Your task to perform on an android device: turn off picture-in-picture Image 0: 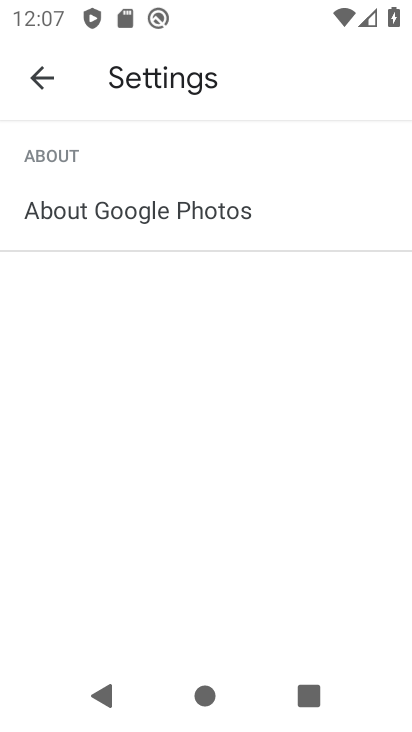
Step 0: press back button
Your task to perform on an android device: turn off picture-in-picture Image 1: 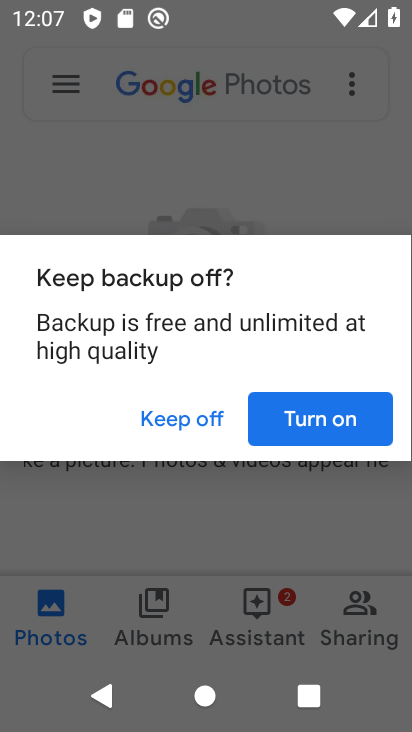
Step 1: press home button
Your task to perform on an android device: turn off picture-in-picture Image 2: 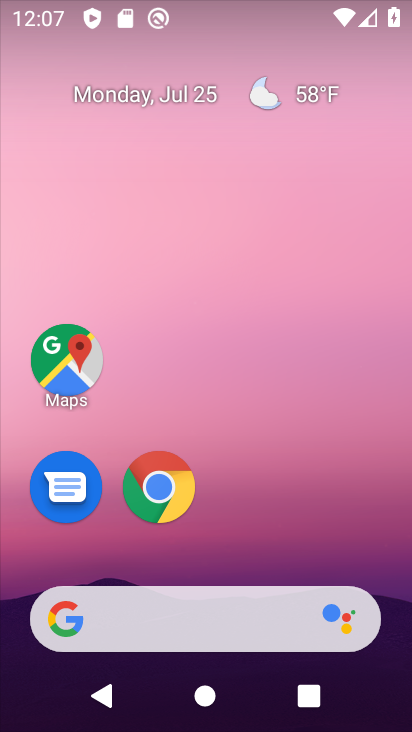
Step 2: drag from (296, 397) to (317, 31)
Your task to perform on an android device: turn off picture-in-picture Image 3: 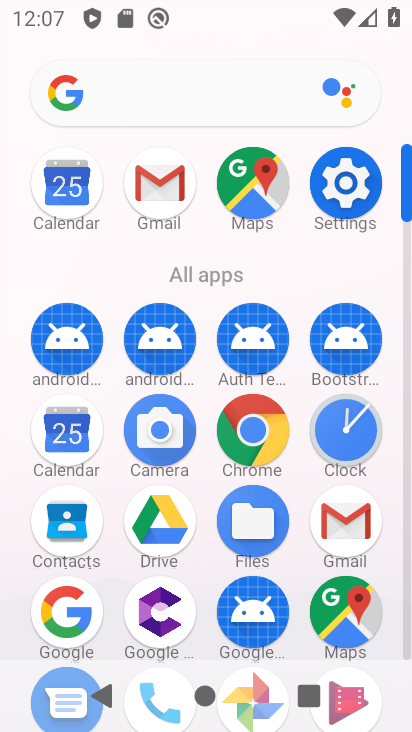
Step 3: click (335, 197)
Your task to perform on an android device: turn off picture-in-picture Image 4: 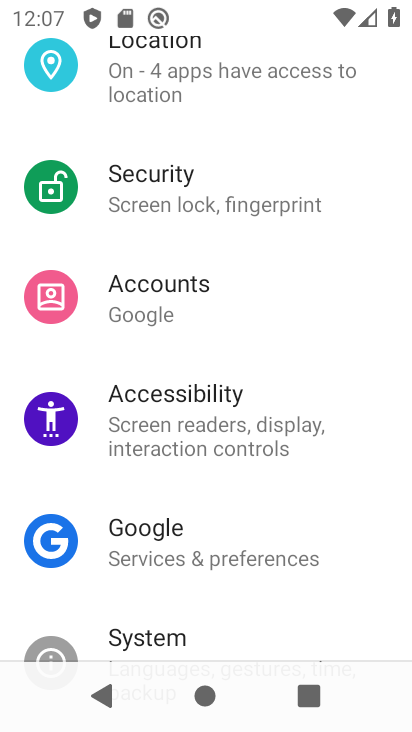
Step 4: drag from (130, 615) to (244, 18)
Your task to perform on an android device: turn off picture-in-picture Image 5: 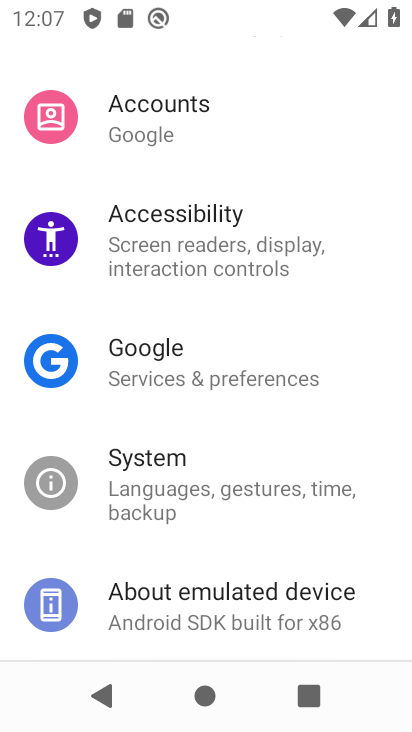
Step 5: drag from (274, 149) to (288, 78)
Your task to perform on an android device: turn off picture-in-picture Image 6: 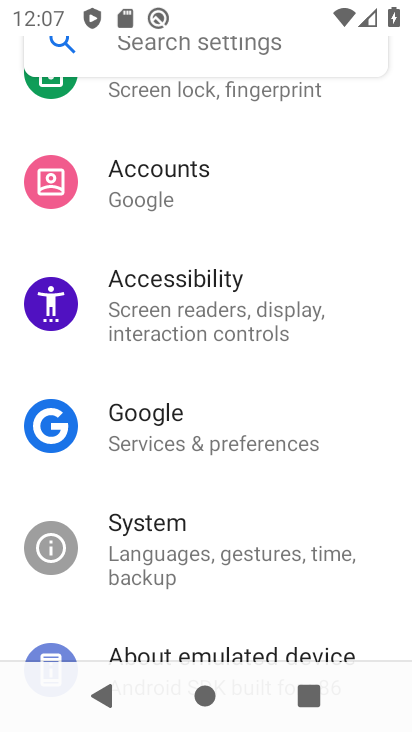
Step 6: drag from (143, 580) to (240, 17)
Your task to perform on an android device: turn off picture-in-picture Image 7: 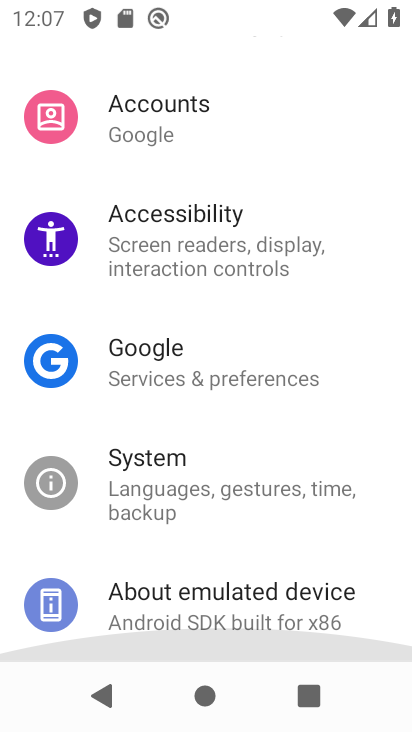
Step 7: drag from (173, 547) to (281, 0)
Your task to perform on an android device: turn off picture-in-picture Image 8: 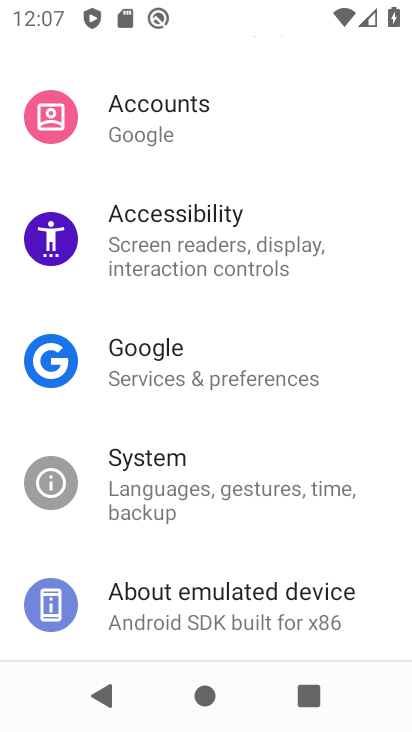
Step 8: click (170, 625)
Your task to perform on an android device: turn off picture-in-picture Image 9: 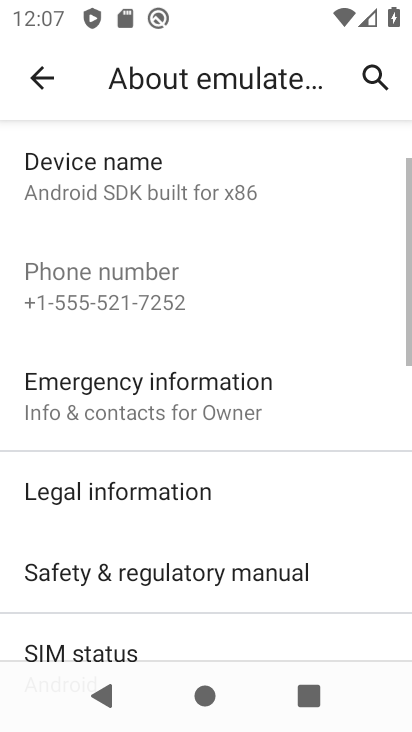
Step 9: drag from (175, 617) to (290, 87)
Your task to perform on an android device: turn off picture-in-picture Image 10: 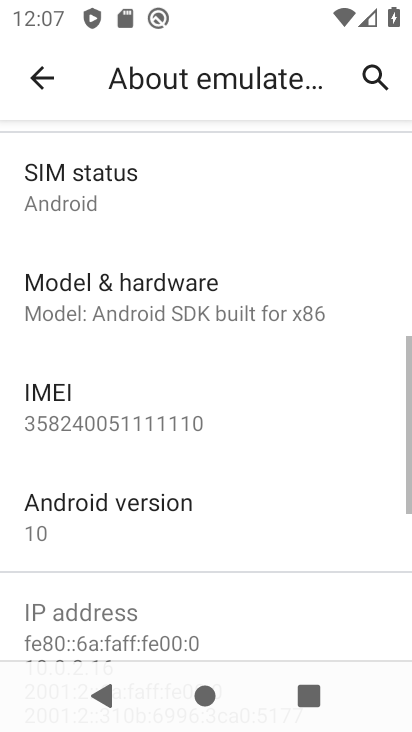
Step 10: click (41, 70)
Your task to perform on an android device: turn off picture-in-picture Image 11: 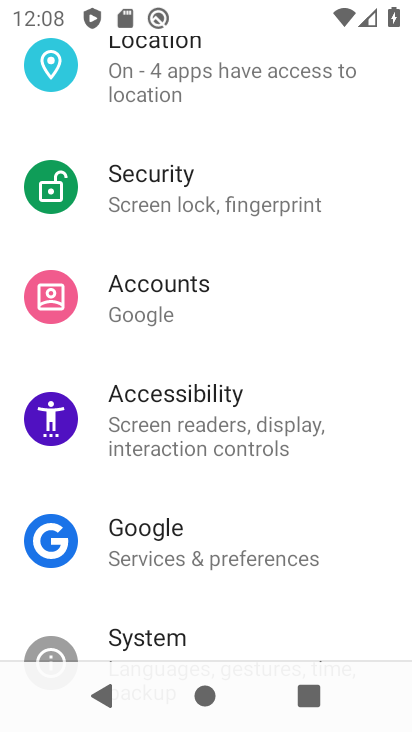
Step 11: drag from (186, 619) to (153, 722)
Your task to perform on an android device: turn off picture-in-picture Image 12: 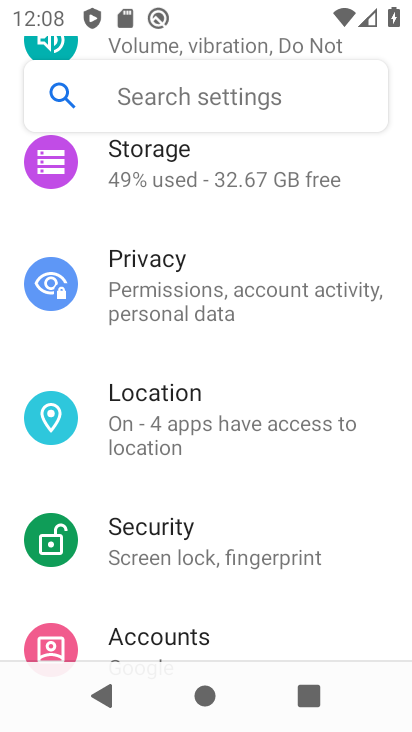
Step 12: drag from (217, 258) to (199, 544)
Your task to perform on an android device: turn off picture-in-picture Image 13: 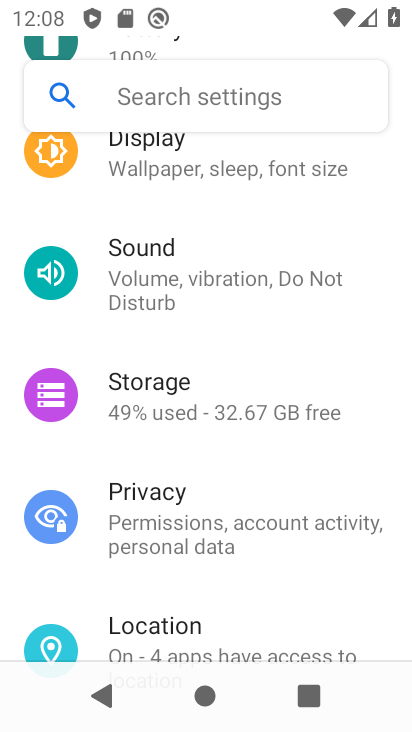
Step 13: drag from (191, 232) to (237, 712)
Your task to perform on an android device: turn off picture-in-picture Image 14: 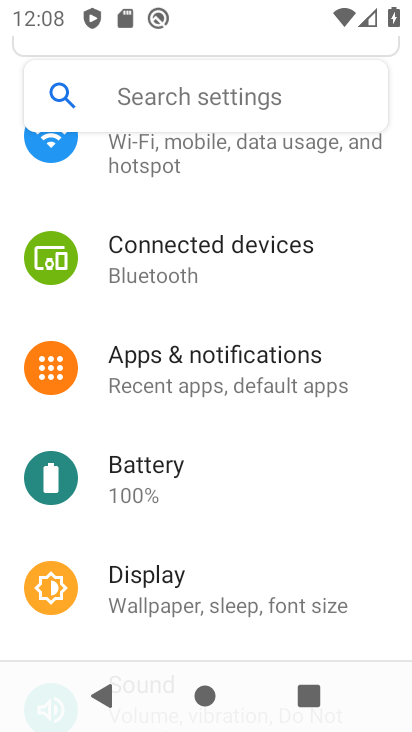
Step 14: drag from (211, 218) to (198, 660)
Your task to perform on an android device: turn off picture-in-picture Image 15: 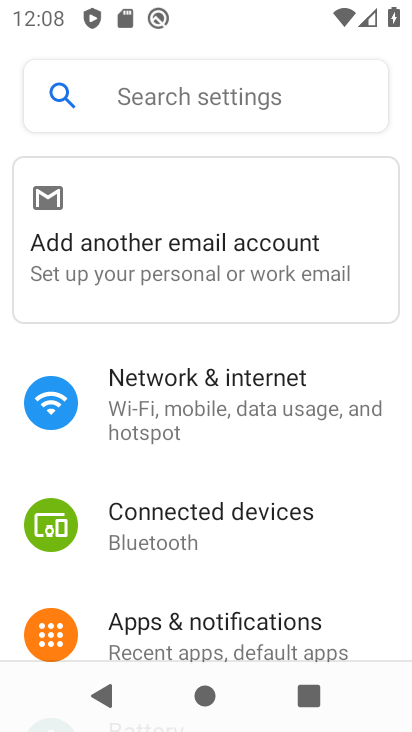
Step 15: drag from (191, 605) to (227, 415)
Your task to perform on an android device: turn off picture-in-picture Image 16: 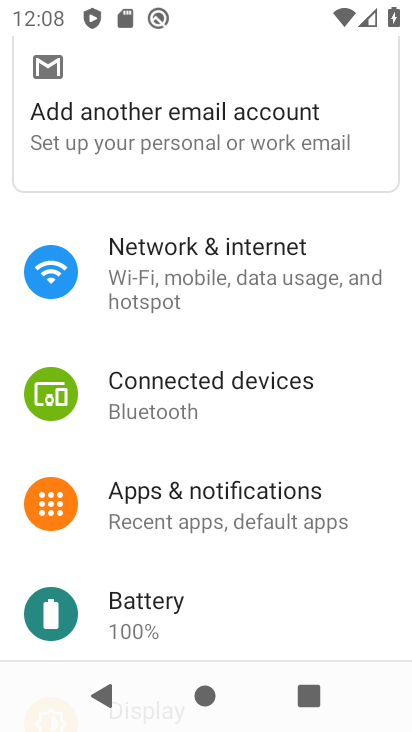
Step 16: click (197, 505)
Your task to perform on an android device: turn off picture-in-picture Image 17: 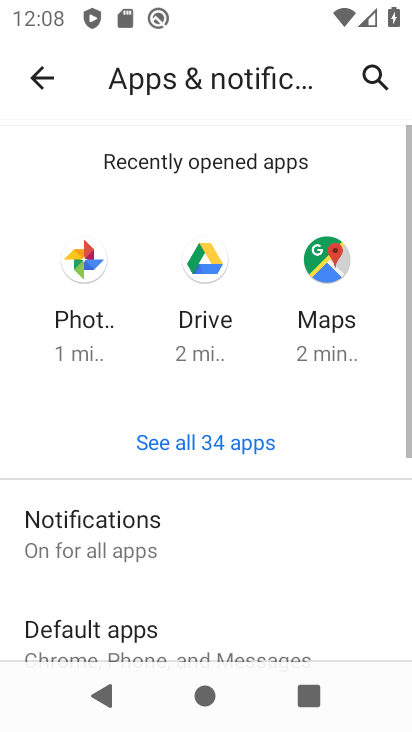
Step 17: drag from (160, 575) to (281, 3)
Your task to perform on an android device: turn off picture-in-picture Image 18: 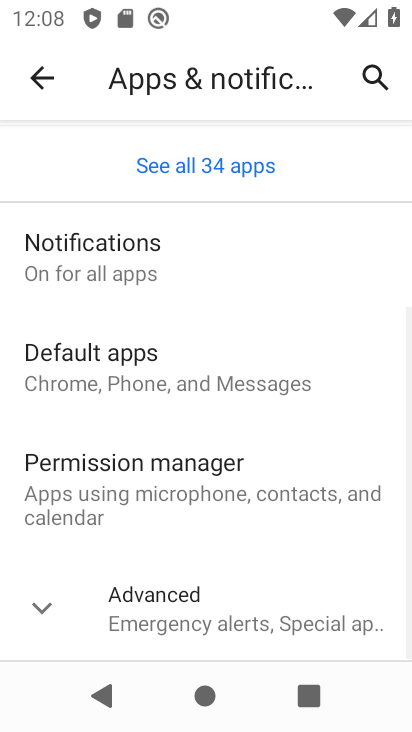
Step 18: click (154, 594)
Your task to perform on an android device: turn off picture-in-picture Image 19: 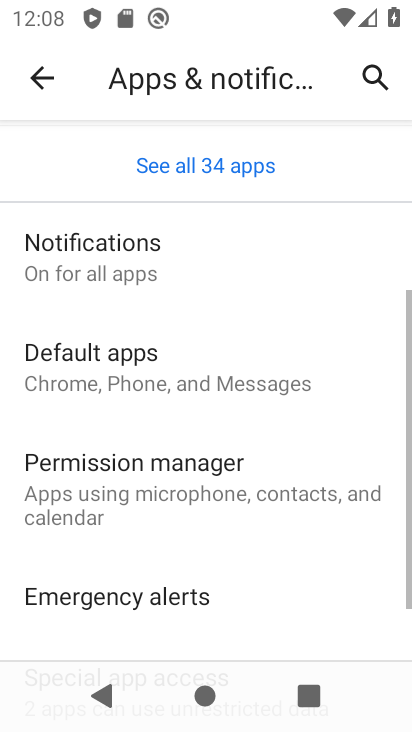
Step 19: drag from (147, 578) to (271, 2)
Your task to perform on an android device: turn off picture-in-picture Image 20: 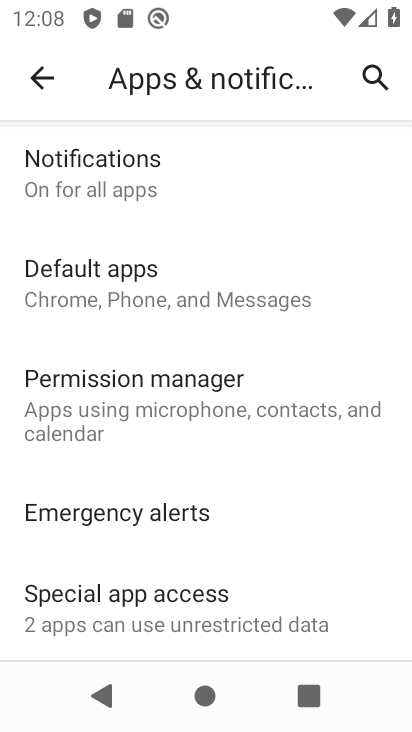
Step 20: click (144, 614)
Your task to perform on an android device: turn off picture-in-picture Image 21: 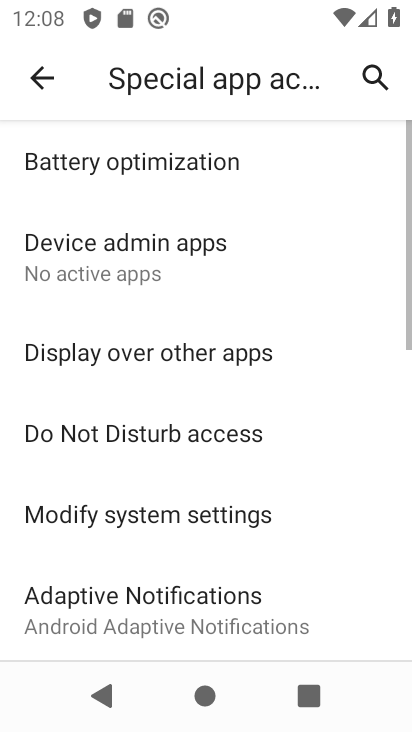
Step 21: drag from (149, 582) to (304, 0)
Your task to perform on an android device: turn off picture-in-picture Image 22: 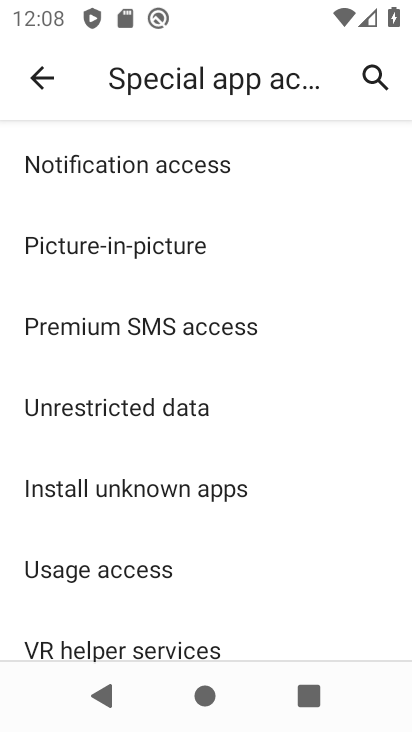
Step 22: click (105, 236)
Your task to perform on an android device: turn off picture-in-picture Image 23: 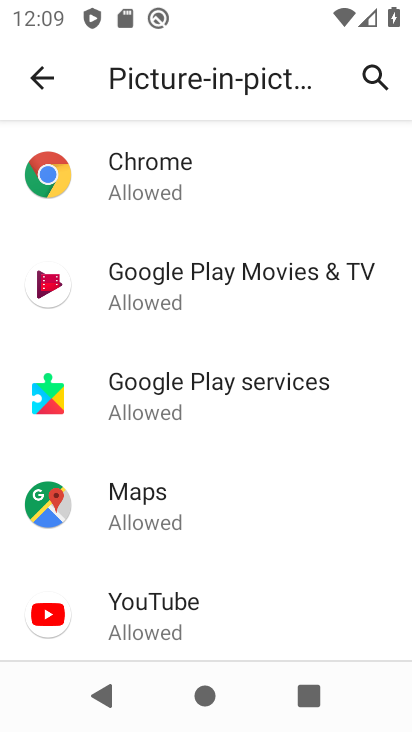
Step 23: click (182, 176)
Your task to perform on an android device: turn off picture-in-picture Image 24: 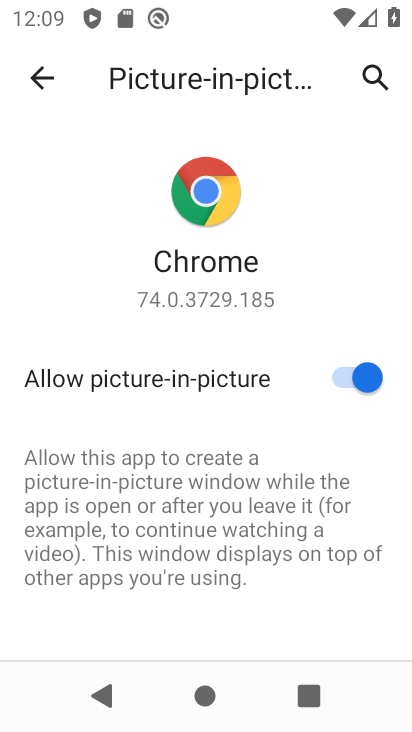
Step 24: click (365, 376)
Your task to perform on an android device: turn off picture-in-picture Image 25: 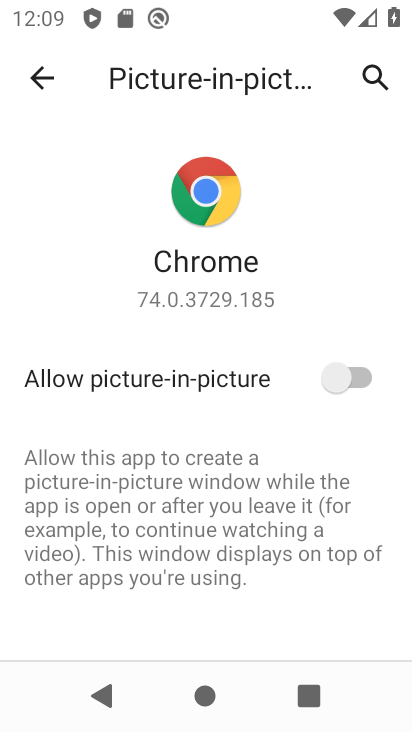
Step 25: task complete